Your task to perform on an android device: turn on showing notifications on the lock screen Image 0: 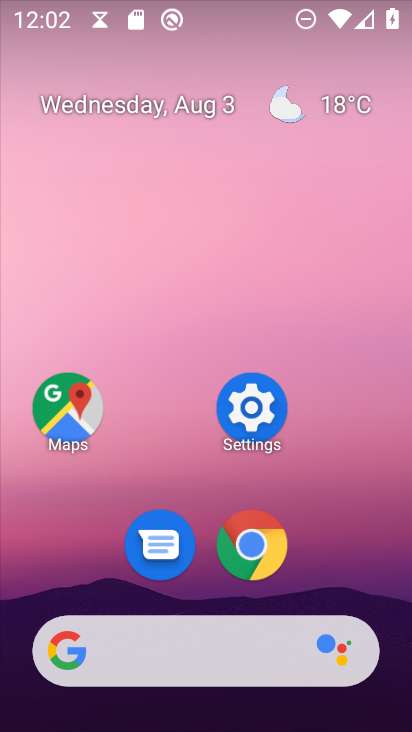
Step 0: press home button
Your task to perform on an android device: turn on showing notifications on the lock screen Image 1: 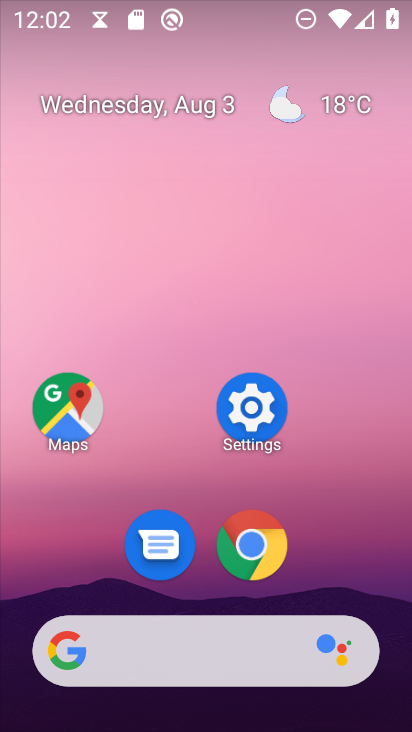
Step 1: click (243, 422)
Your task to perform on an android device: turn on showing notifications on the lock screen Image 2: 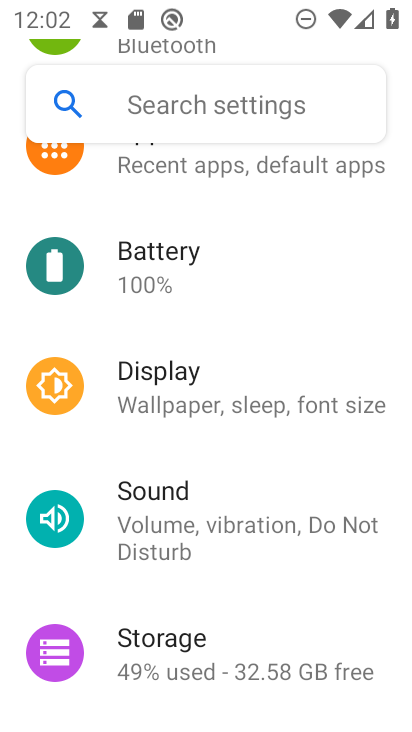
Step 2: drag from (304, 224) to (292, 638)
Your task to perform on an android device: turn on showing notifications on the lock screen Image 3: 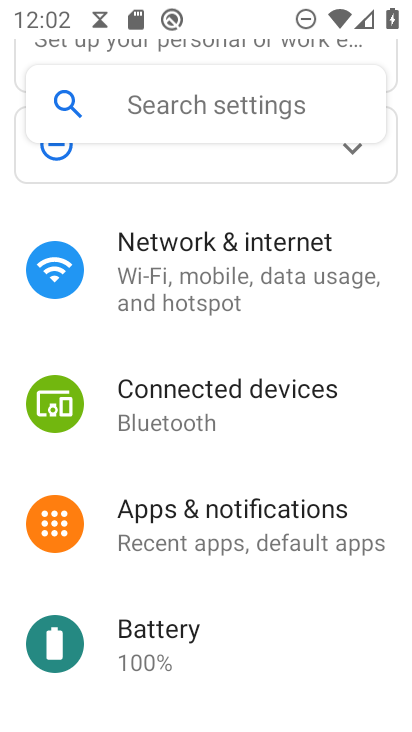
Step 3: click (259, 524)
Your task to perform on an android device: turn on showing notifications on the lock screen Image 4: 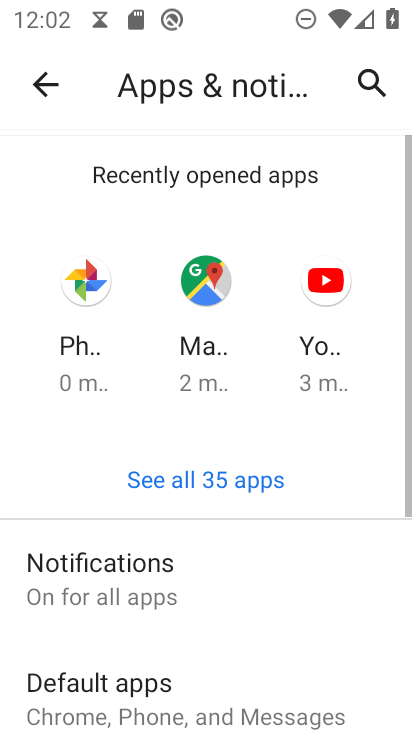
Step 4: click (88, 585)
Your task to perform on an android device: turn on showing notifications on the lock screen Image 5: 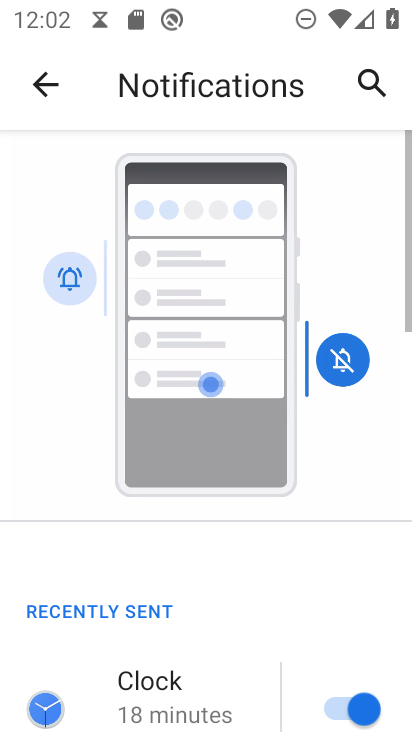
Step 5: drag from (253, 640) to (400, 101)
Your task to perform on an android device: turn on showing notifications on the lock screen Image 6: 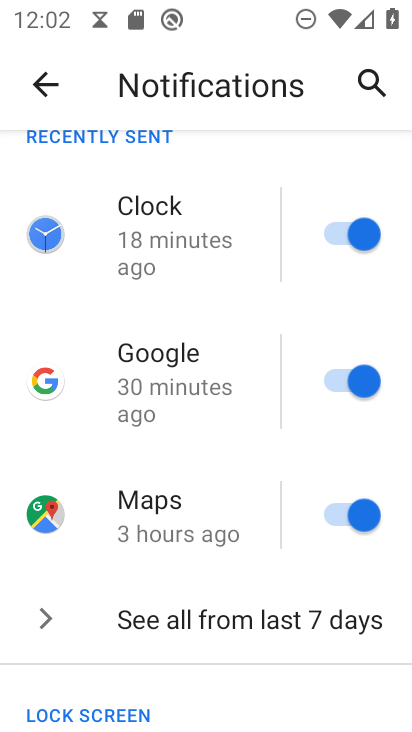
Step 6: drag from (258, 685) to (352, 130)
Your task to perform on an android device: turn on showing notifications on the lock screen Image 7: 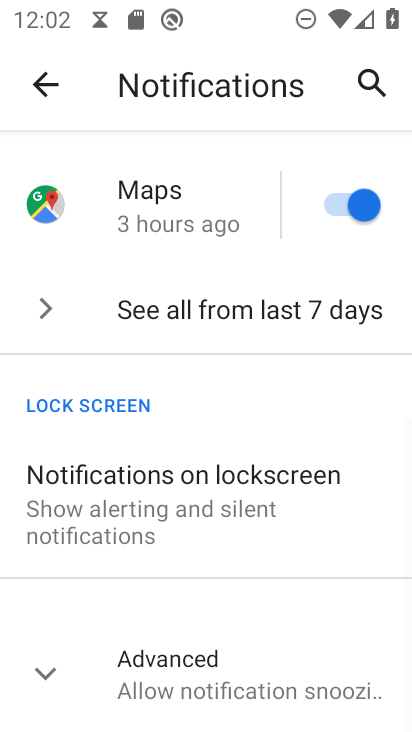
Step 7: click (190, 500)
Your task to perform on an android device: turn on showing notifications on the lock screen Image 8: 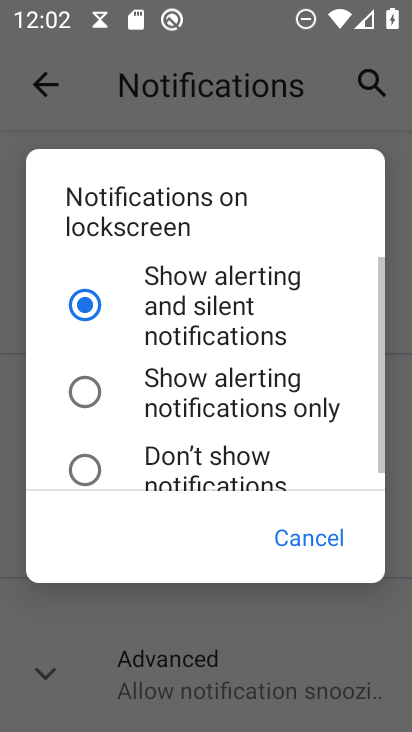
Step 8: drag from (208, 400) to (292, 231)
Your task to perform on an android device: turn on showing notifications on the lock screen Image 9: 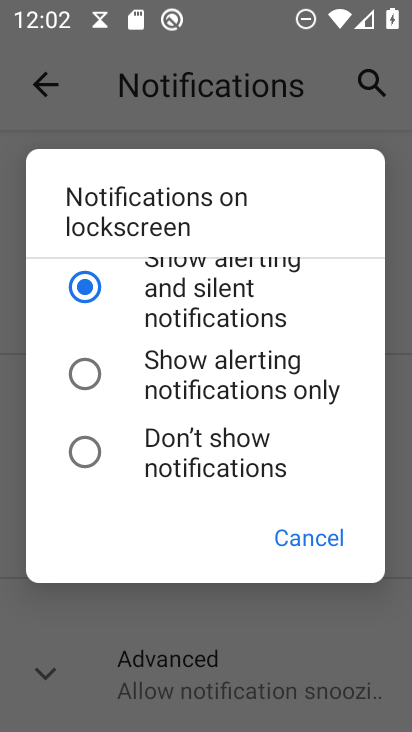
Step 9: click (83, 453)
Your task to perform on an android device: turn on showing notifications on the lock screen Image 10: 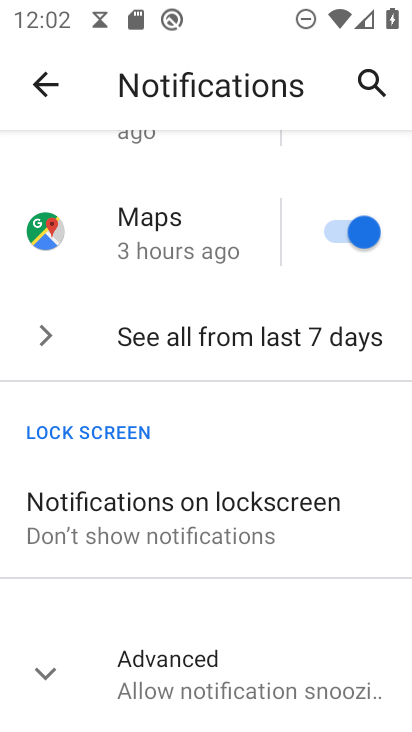
Step 10: click (160, 541)
Your task to perform on an android device: turn on showing notifications on the lock screen Image 11: 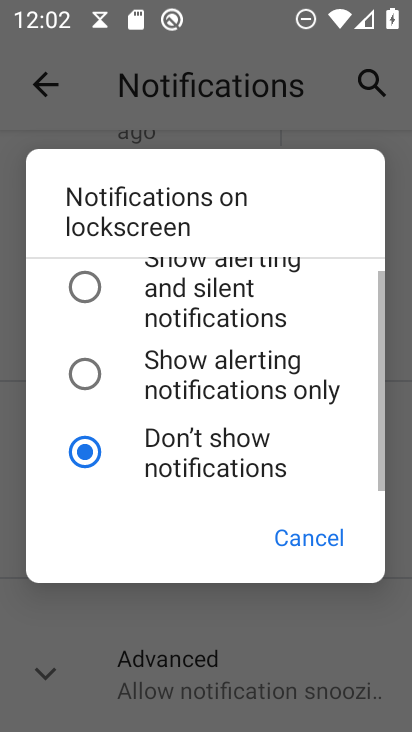
Step 11: click (91, 293)
Your task to perform on an android device: turn on showing notifications on the lock screen Image 12: 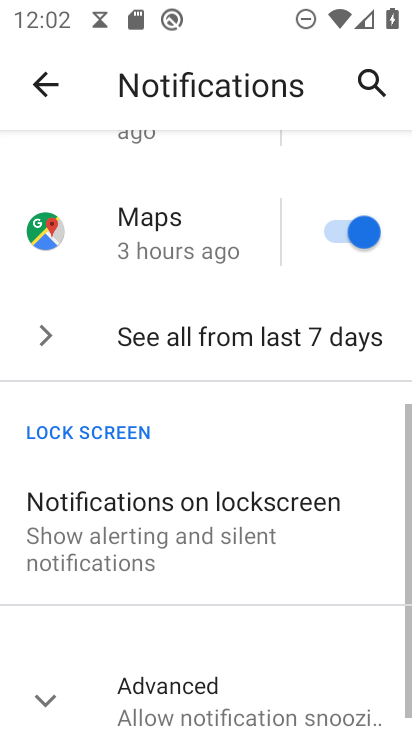
Step 12: task complete